Your task to perform on an android device: turn pop-ups off in chrome Image 0: 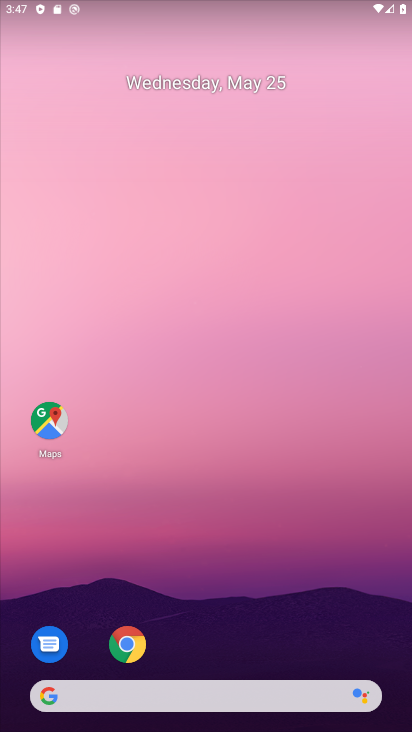
Step 0: click (126, 644)
Your task to perform on an android device: turn pop-ups off in chrome Image 1: 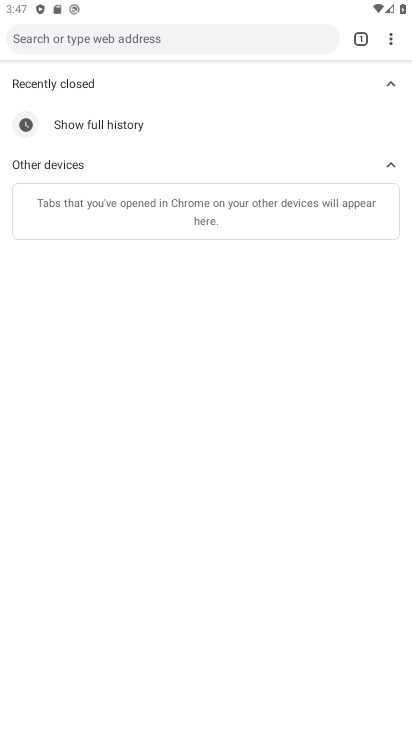
Step 1: click (390, 41)
Your task to perform on an android device: turn pop-ups off in chrome Image 2: 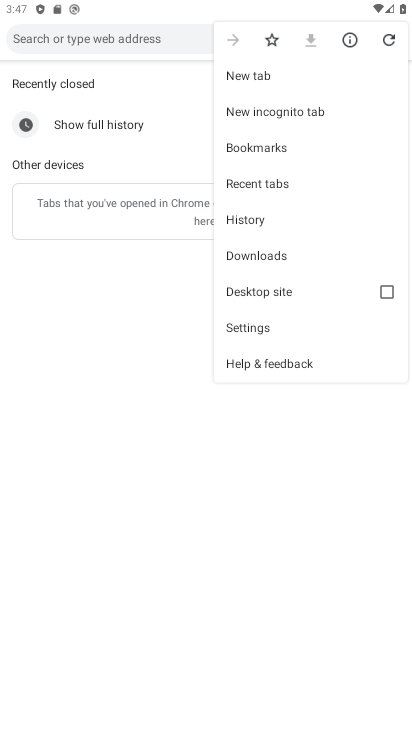
Step 2: click (259, 327)
Your task to perform on an android device: turn pop-ups off in chrome Image 3: 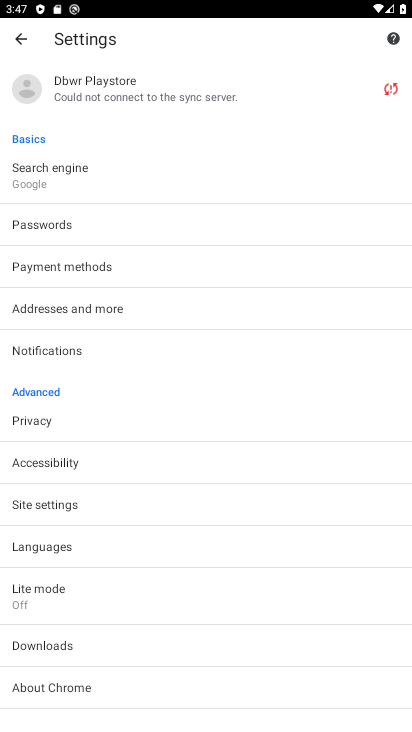
Step 3: click (46, 505)
Your task to perform on an android device: turn pop-ups off in chrome Image 4: 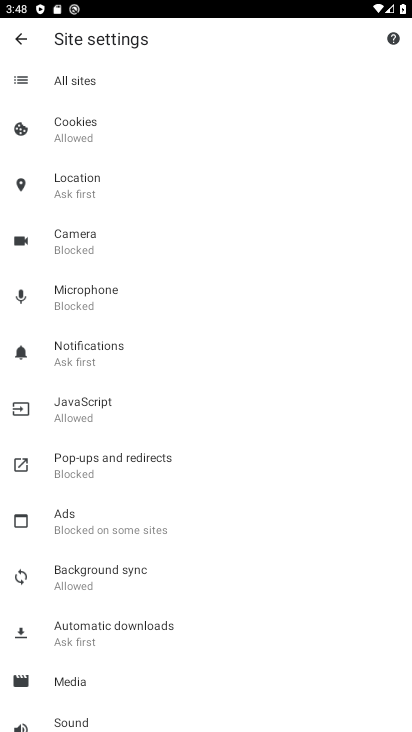
Step 4: click (87, 457)
Your task to perform on an android device: turn pop-ups off in chrome Image 5: 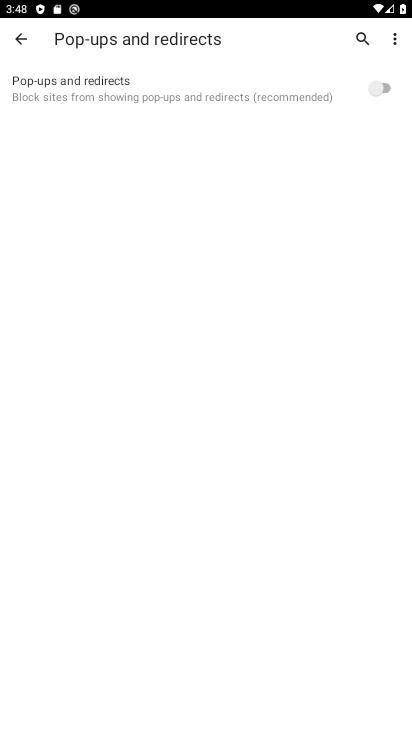
Step 5: task complete